Your task to perform on an android device: turn off location history Image 0: 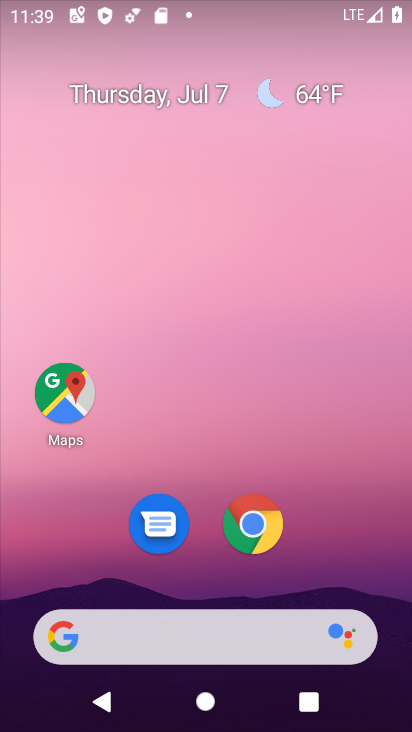
Step 0: drag from (323, 516) to (328, 8)
Your task to perform on an android device: turn off location history Image 1: 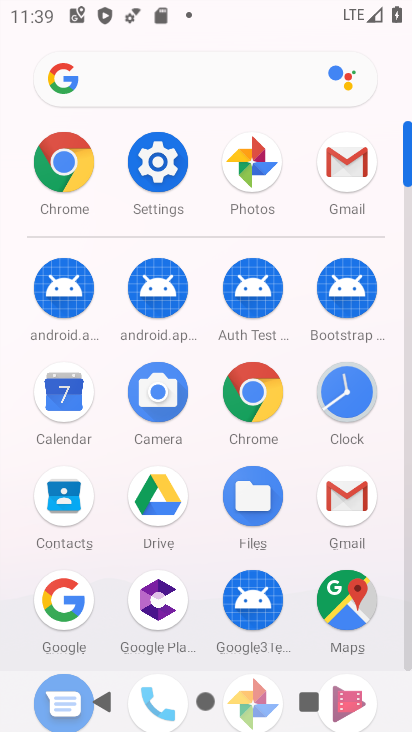
Step 1: click (149, 154)
Your task to perform on an android device: turn off location history Image 2: 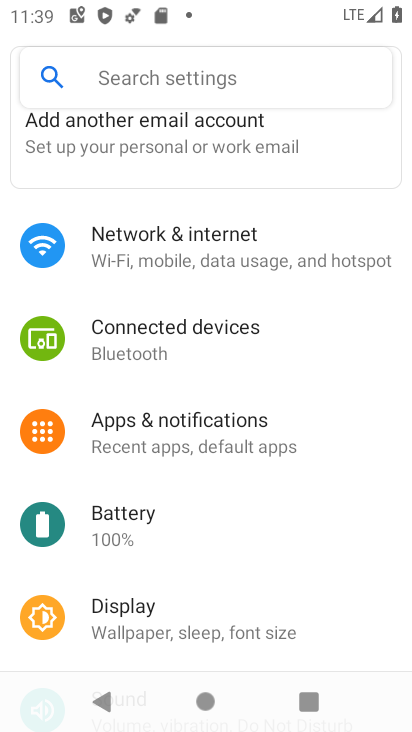
Step 2: drag from (203, 557) to (260, 90)
Your task to perform on an android device: turn off location history Image 3: 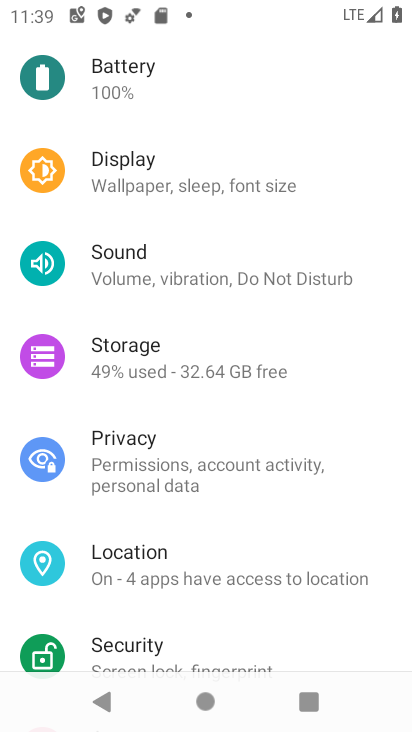
Step 3: click (223, 573)
Your task to perform on an android device: turn off location history Image 4: 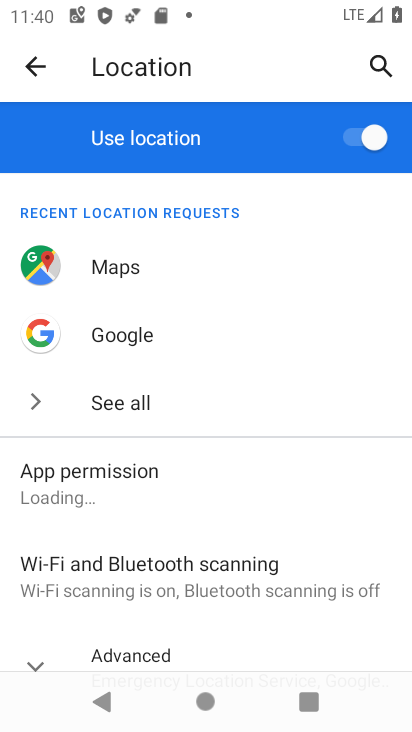
Step 4: drag from (225, 494) to (240, 227)
Your task to perform on an android device: turn off location history Image 5: 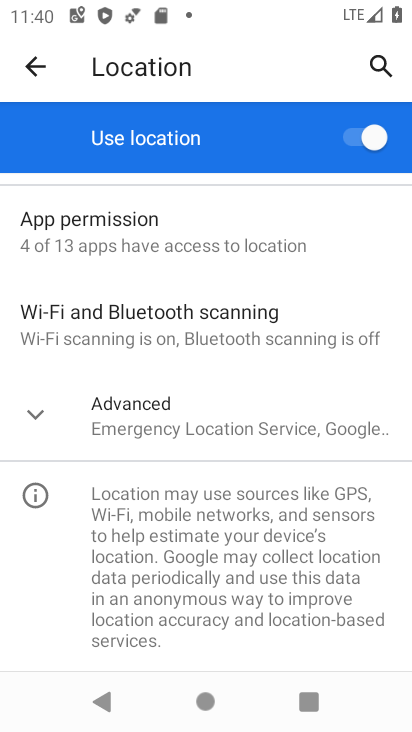
Step 5: click (37, 409)
Your task to perform on an android device: turn off location history Image 6: 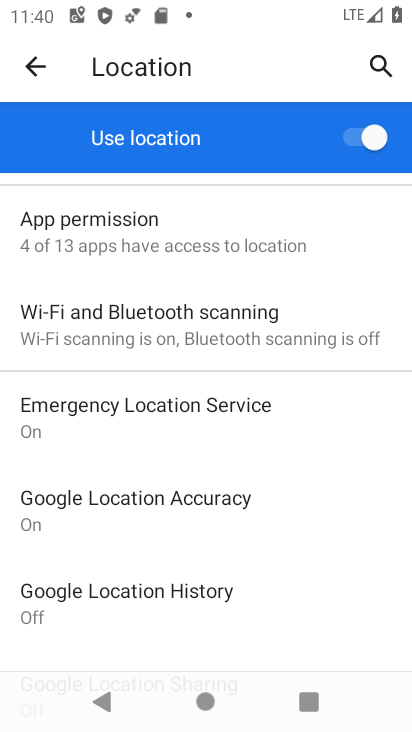
Step 6: task complete